Your task to perform on an android device: Where can I buy a nice beach cooler? Image 0: 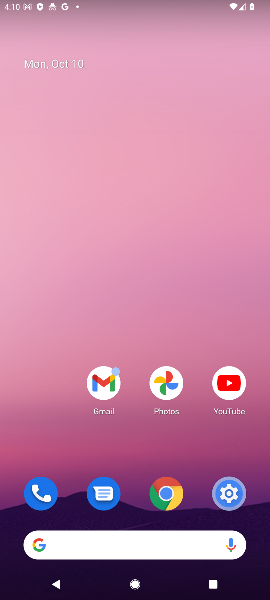
Step 0: click (151, 553)
Your task to perform on an android device: Where can I buy a nice beach cooler? Image 1: 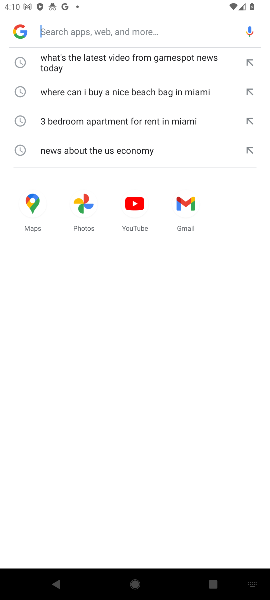
Step 1: type "Where can I buy a nice beach cooler?"
Your task to perform on an android device: Where can I buy a nice beach cooler? Image 2: 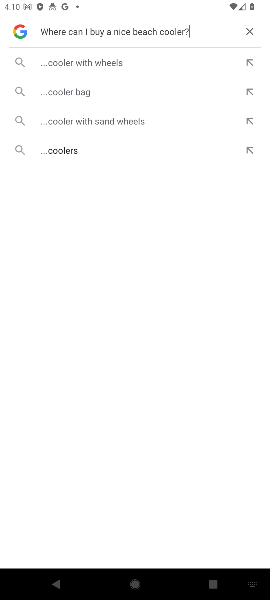
Step 2: click (181, 60)
Your task to perform on an android device: Where can I buy a nice beach cooler? Image 3: 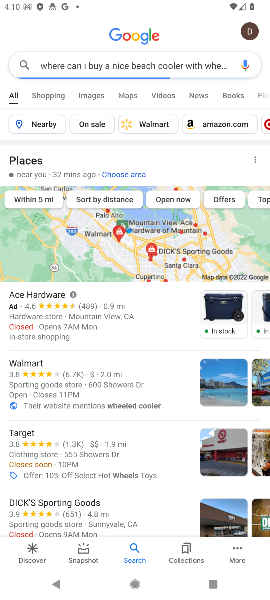
Step 3: task complete